Your task to perform on an android device: show emergency info Image 0: 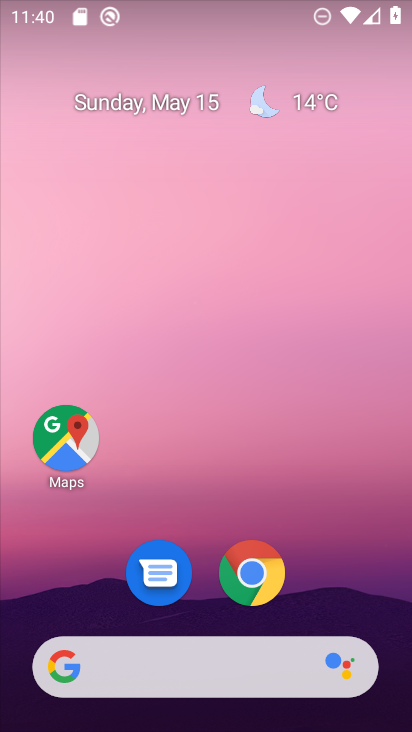
Step 0: click (249, 572)
Your task to perform on an android device: show emergency info Image 1: 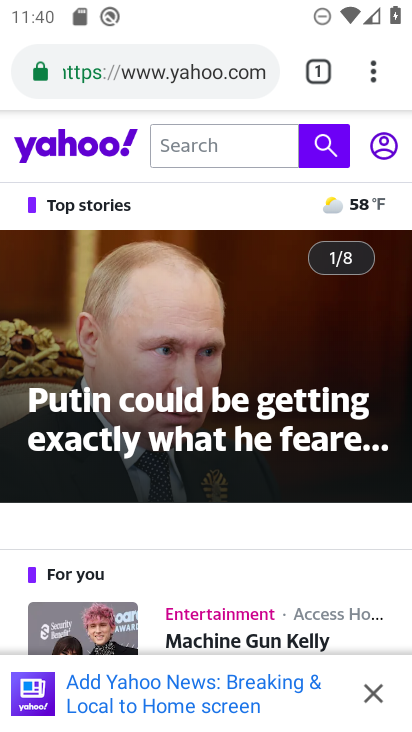
Step 1: press home button
Your task to perform on an android device: show emergency info Image 2: 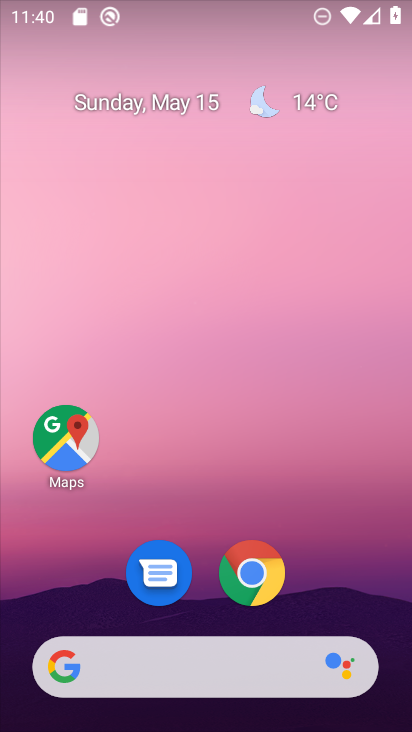
Step 2: drag from (274, 479) to (214, 157)
Your task to perform on an android device: show emergency info Image 3: 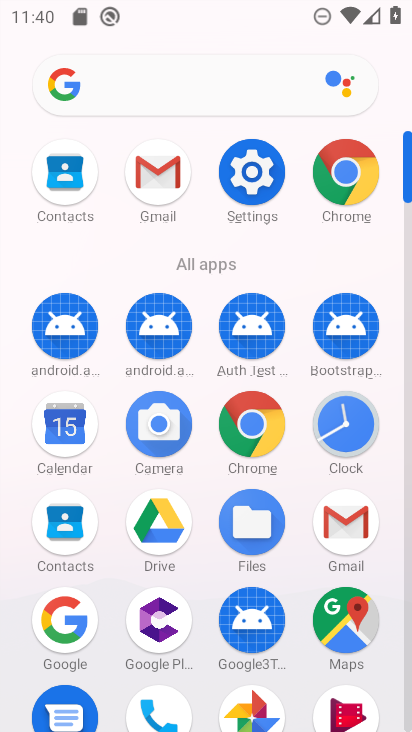
Step 3: click (253, 162)
Your task to perform on an android device: show emergency info Image 4: 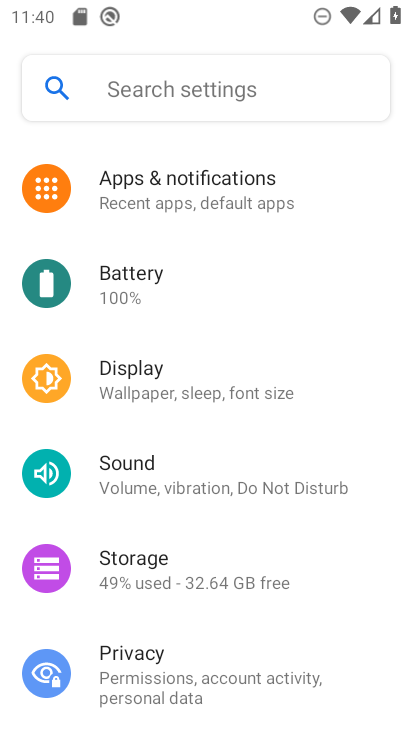
Step 4: drag from (224, 622) to (221, 263)
Your task to perform on an android device: show emergency info Image 5: 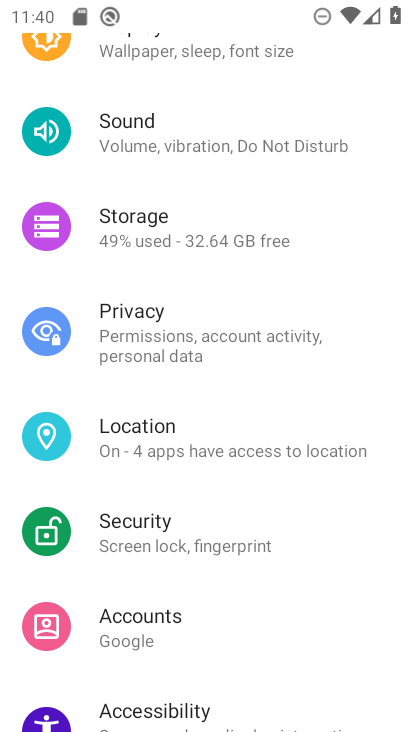
Step 5: drag from (225, 549) to (163, 144)
Your task to perform on an android device: show emergency info Image 6: 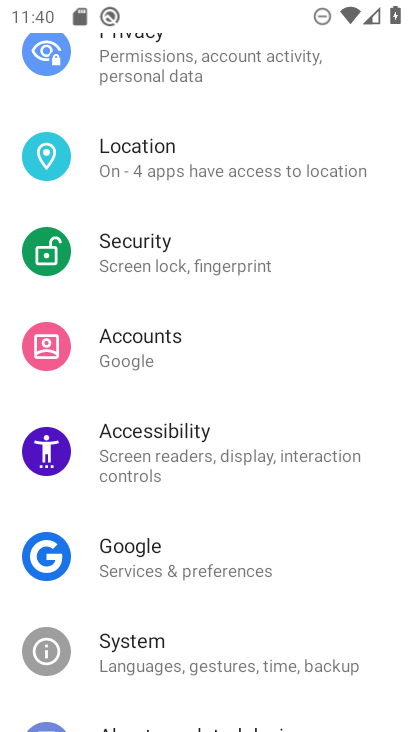
Step 6: drag from (190, 617) to (137, 292)
Your task to perform on an android device: show emergency info Image 7: 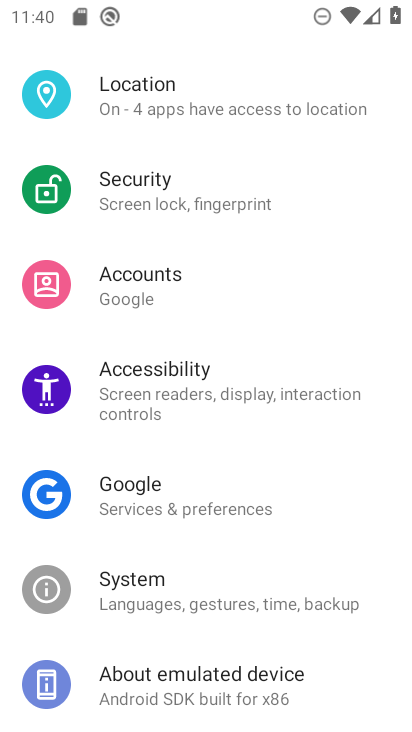
Step 7: click (183, 658)
Your task to perform on an android device: show emergency info Image 8: 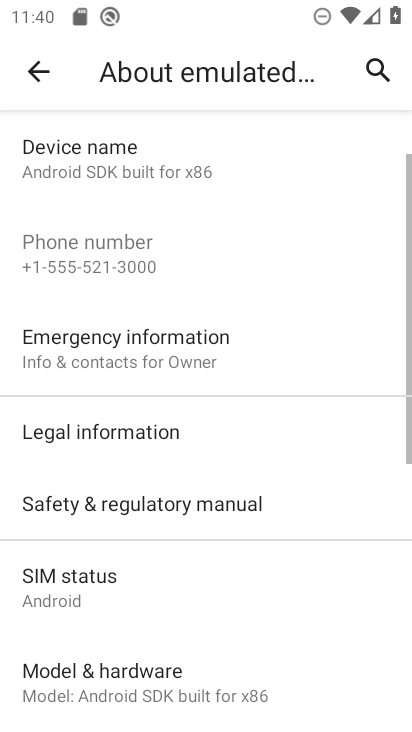
Step 8: click (115, 332)
Your task to perform on an android device: show emergency info Image 9: 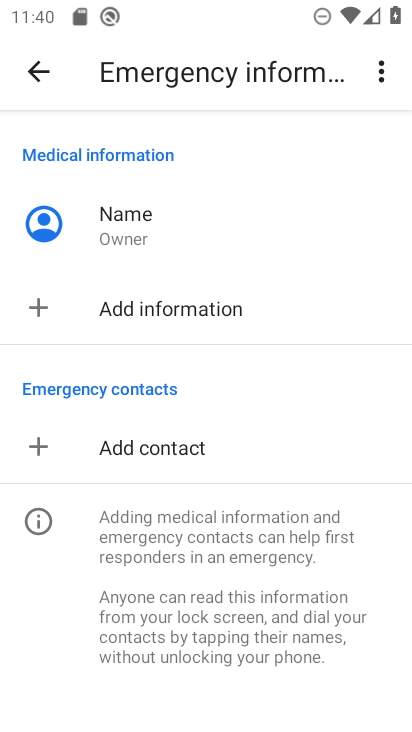
Step 9: task complete